Your task to perform on an android device: turn off translation in the chrome app Image 0: 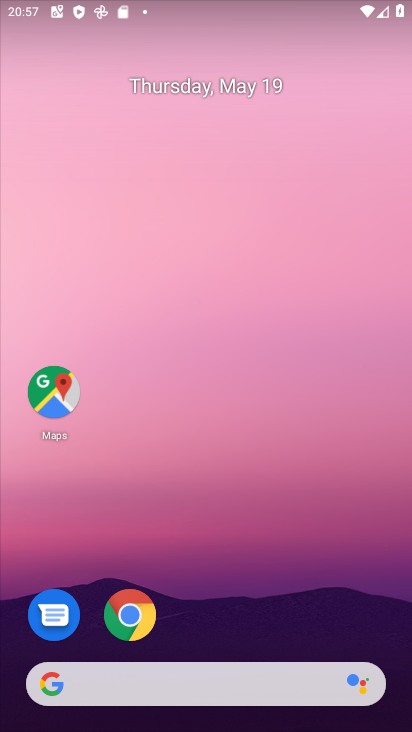
Step 0: click (134, 610)
Your task to perform on an android device: turn off translation in the chrome app Image 1: 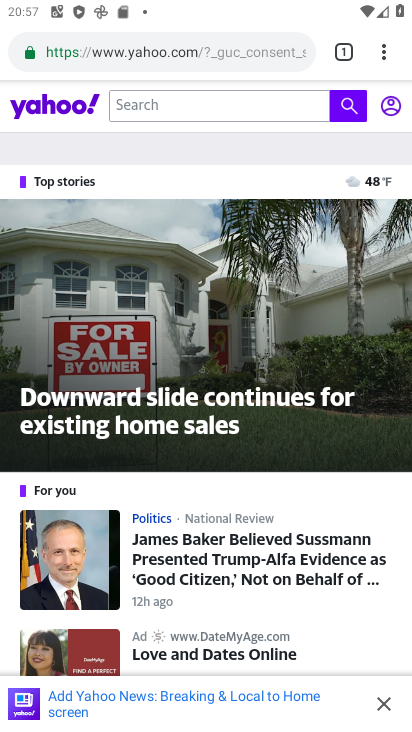
Step 1: click (379, 53)
Your task to perform on an android device: turn off translation in the chrome app Image 2: 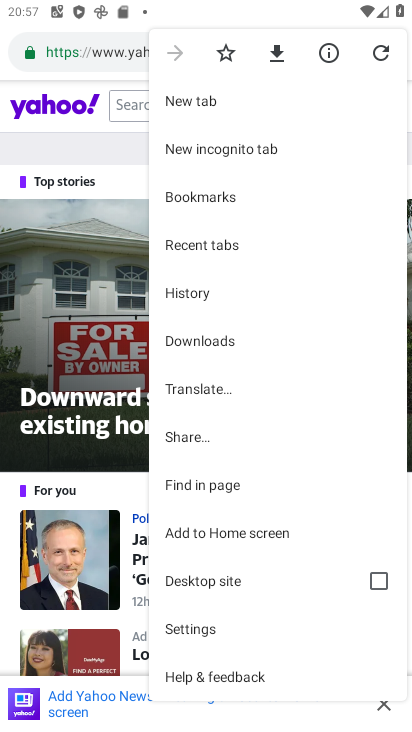
Step 2: click (223, 621)
Your task to perform on an android device: turn off translation in the chrome app Image 3: 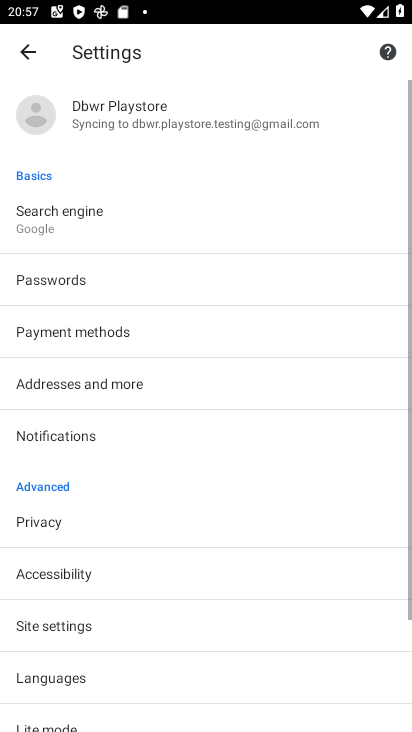
Step 3: drag from (219, 613) to (208, 486)
Your task to perform on an android device: turn off translation in the chrome app Image 4: 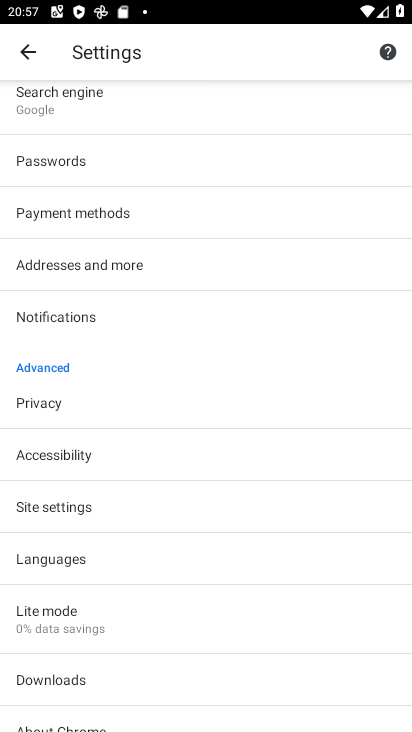
Step 4: click (57, 565)
Your task to perform on an android device: turn off translation in the chrome app Image 5: 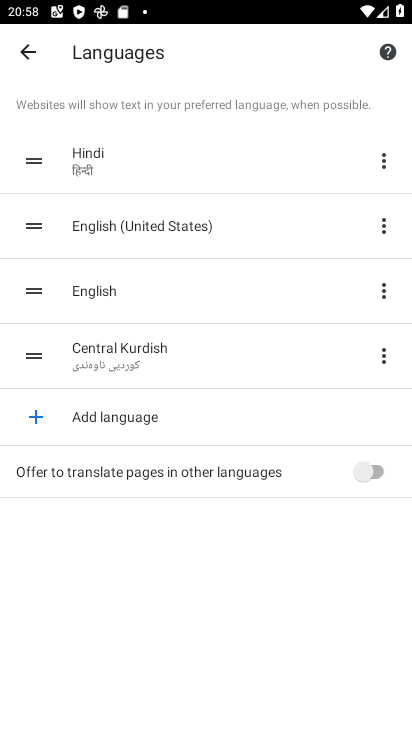
Step 5: task complete